Your task to perform on an android device: turn off smart reply in the gmail app Image 0: 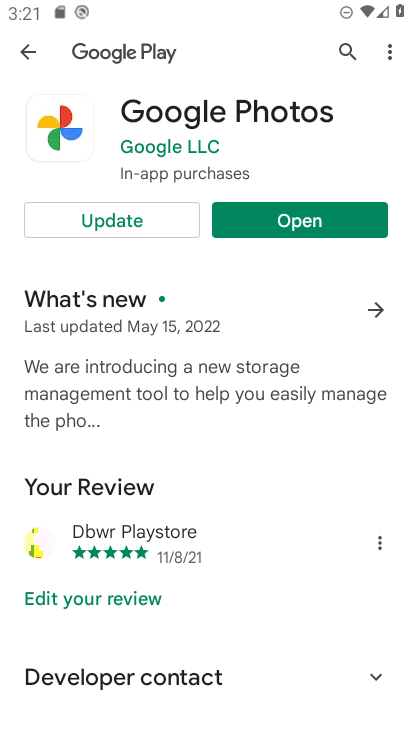
Step 0: press home button
Your task to perform on an android device: turn off smart reply in the gmail app Image 1: 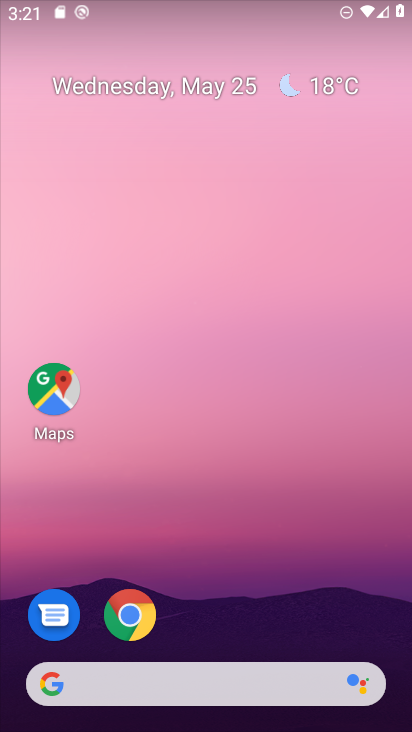
Step 1: drag from (205, 466) to (240, 36)
Your task to perform on an android device: turn off smart reply in the gmail app Image 2: 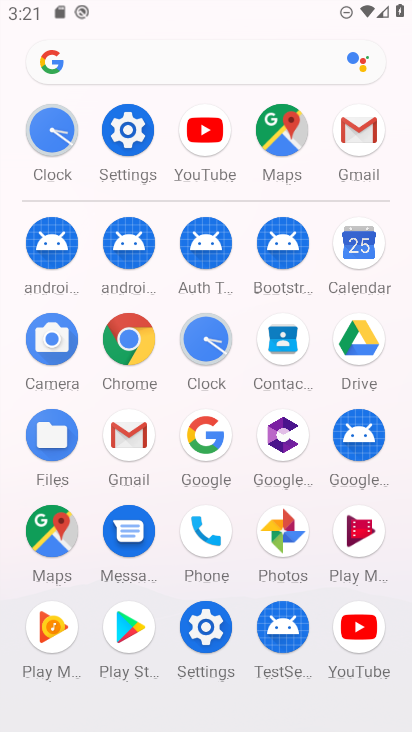
Step 2: click (339, 122)
Your task to perform on an android device: turn off smart reply in the gmail app Image 3: 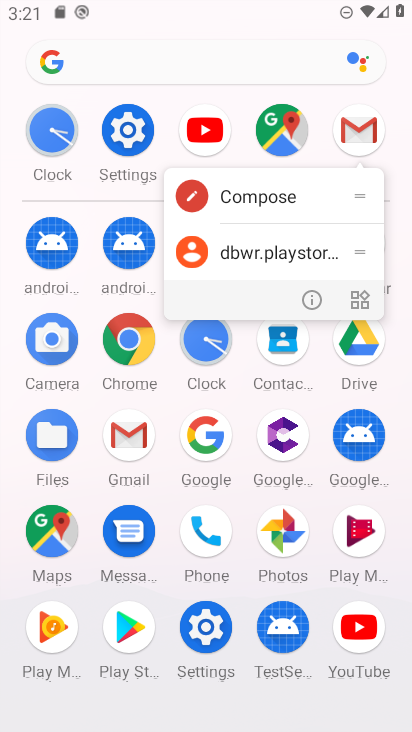
Step 3: click (352, 117)
Your task to perform on an android device: turn off smart reply in the gmail app Image 4: 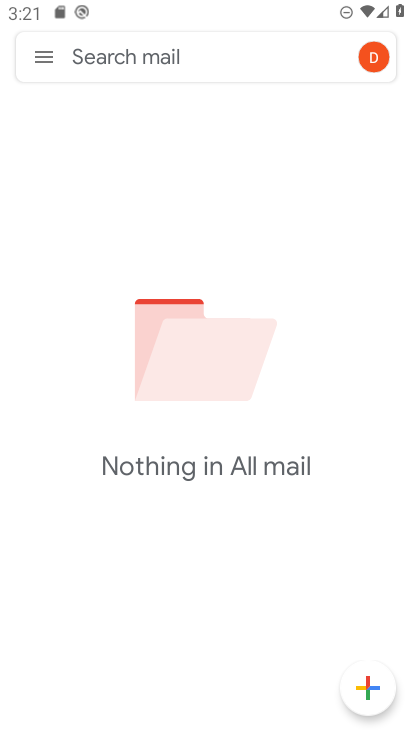
Step 4: click (50, 56)
Your task to perform on an android device: turn off smart reply in the gmail app Image 5: 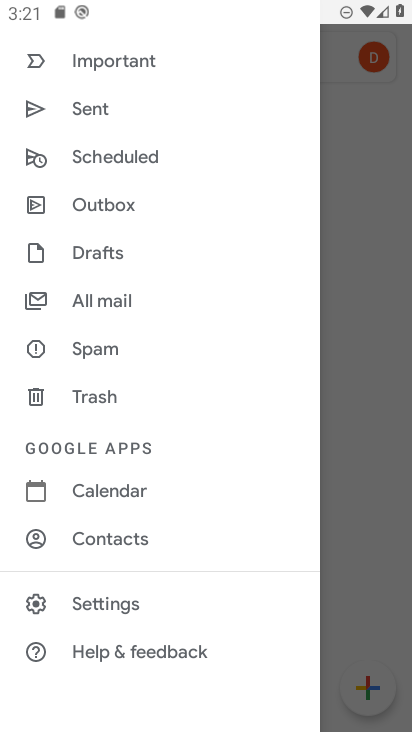
Step 5: click (142, 590)
Your task to perform on an android device: turn off smart reply in the gmail app Image 6: 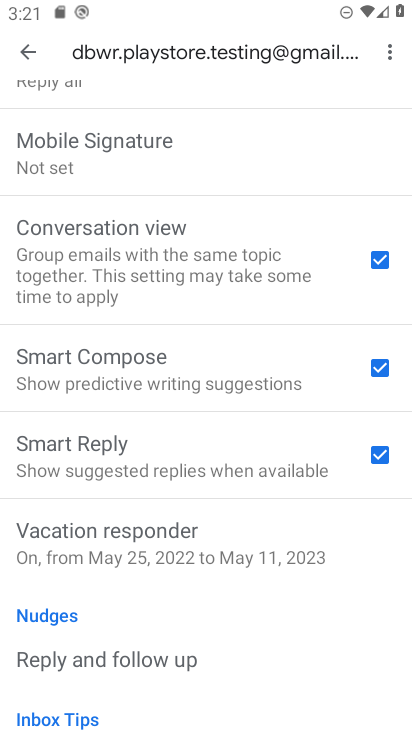
Step 6: click (382, 457)
Your task to perform on an android device: turn off smart reply in the gmail app Image 7: 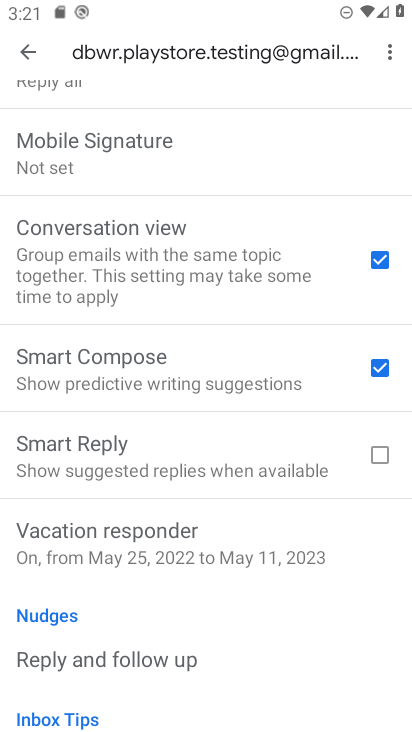
Step 7: task complete